Your task to perform on an android device: read, delete, or share a saved page in the chrome app Image 0: 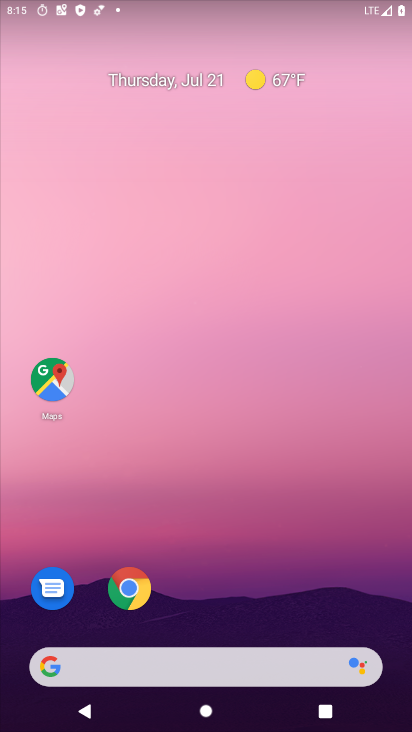
Step 0: click (131, 598)
Your task to perform on an android device: read, delete, or share a saved page in the chrome app Image 1: 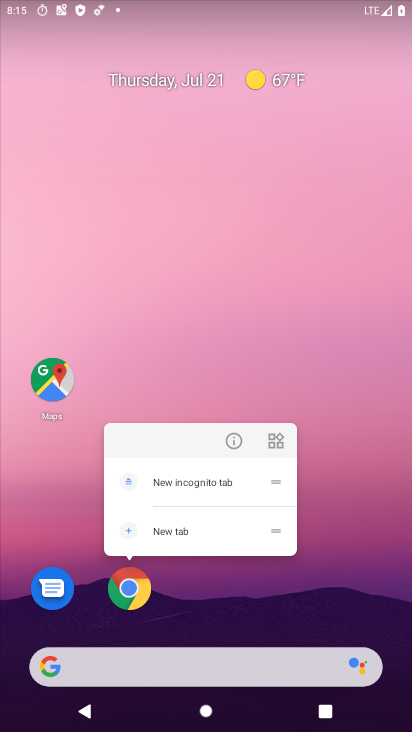
Step 1: click (131, 598)
Your task to perform on an android device: read, delete, or share a saved page in the chrome app Image 2: 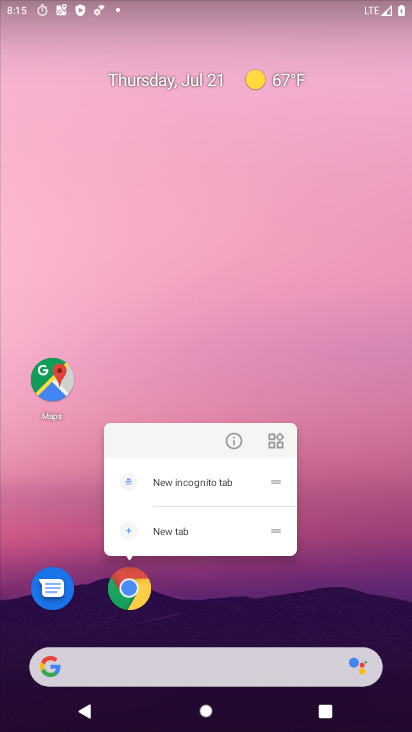
Step 2: click (130, 583)
Your task to perform on an android device: read, delete, or share a saved page in the chrome app Image 3: 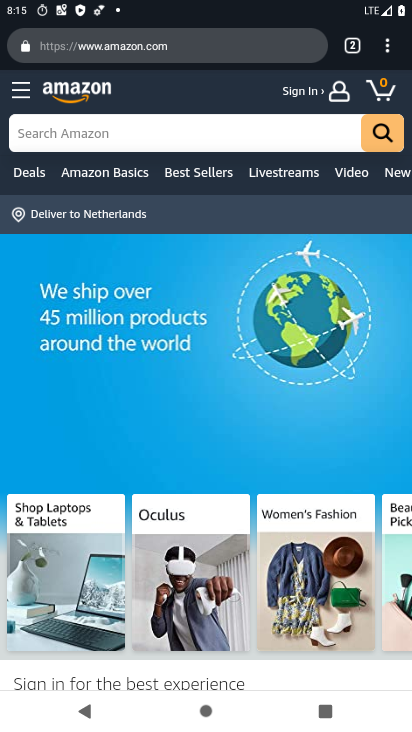
Step 3: click (392, 43)
Your task to perform on an android device: read, delete, or share a saved page in the chrome app Image 4: 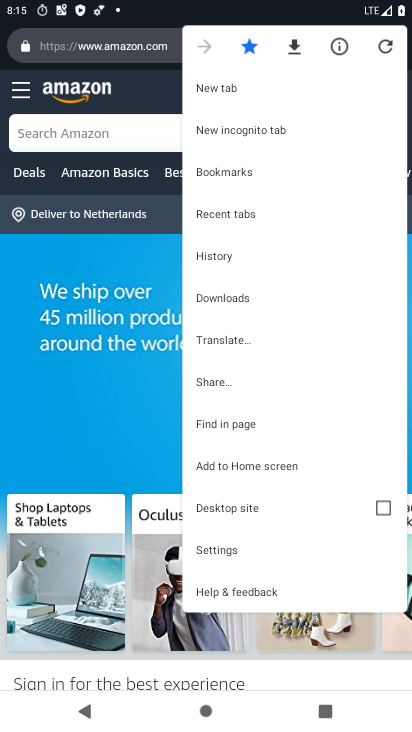
Step 4: click (232, 299)
Your task to perform on an android device: read, delete, or share a saved page in the chrome app Image 5: 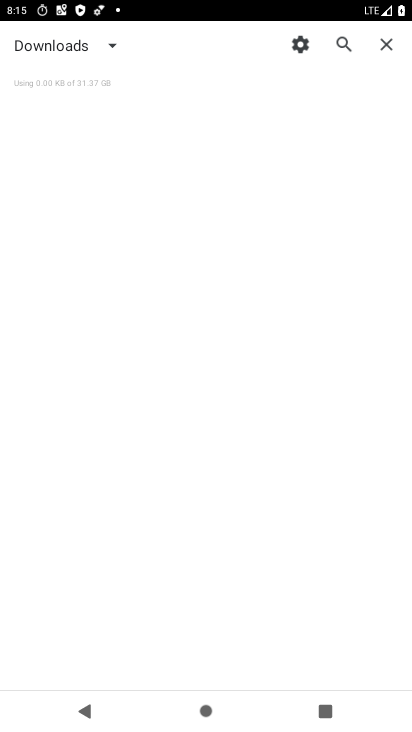
Step 5: click (88, 41)
Your task to perform on an android device: read, delete, or share a saved page in the chrome app Image 6: 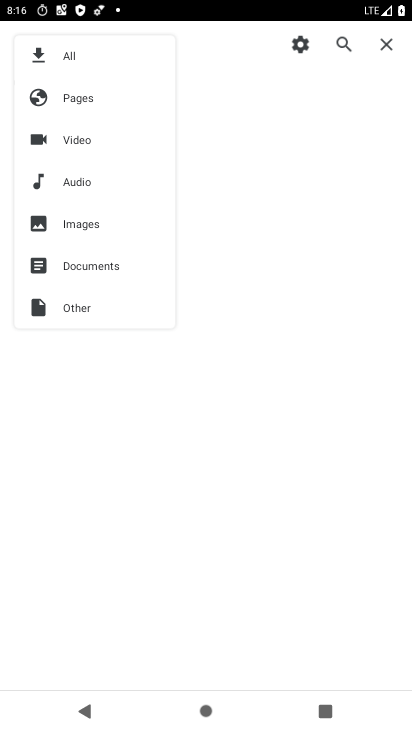
Step 6: click (74, 94)
Your task to perform on an android device: read, delete, or share a saved page in the chrome app Image 7: 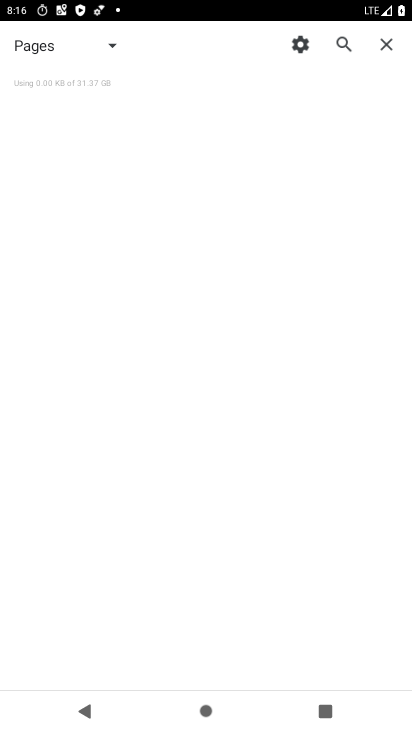
Step 7: task complete